Your task to perform on an android device: toggle translation in the chrome app Image 0: 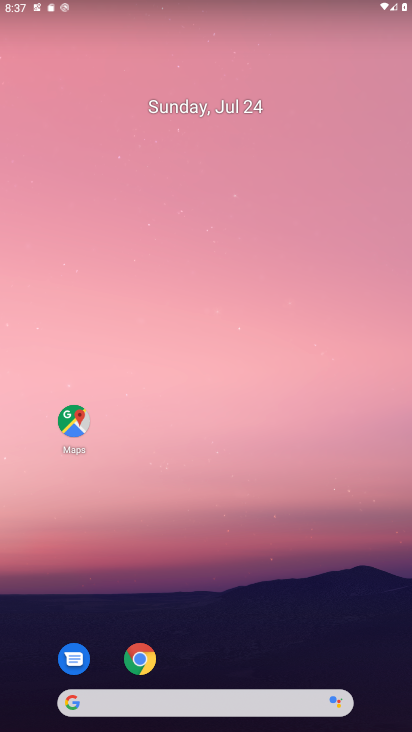
Step 0: drag from (228, 728) to (228, 146)
Your task to perform on an android device: toggle translation in the chrome app Image 1: 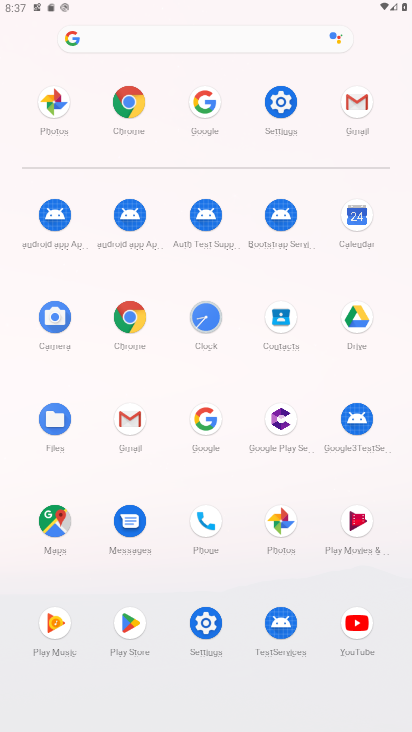
Step 1: click (124, 315)
Your task to perform on an android device: toggle translation in the chrome app Image 2: 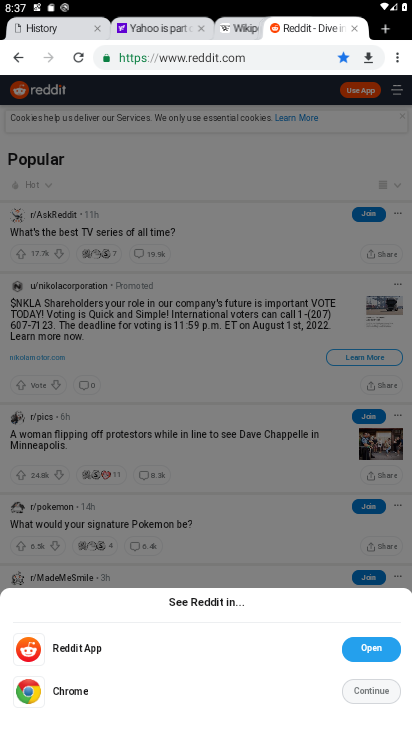
Step 2: click (396, 63)
Your task to perform on an android device: toggle translation in the chrome app Image 3: 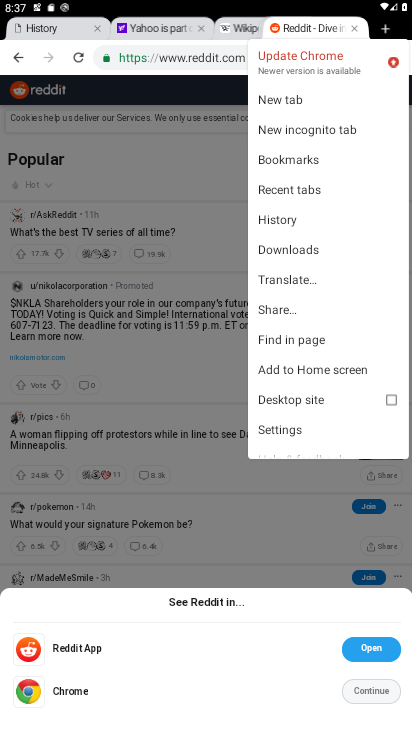
Step 3: click (287, 426)
Your task to perform on an android device: toggle translation in the chrome app Image 4: 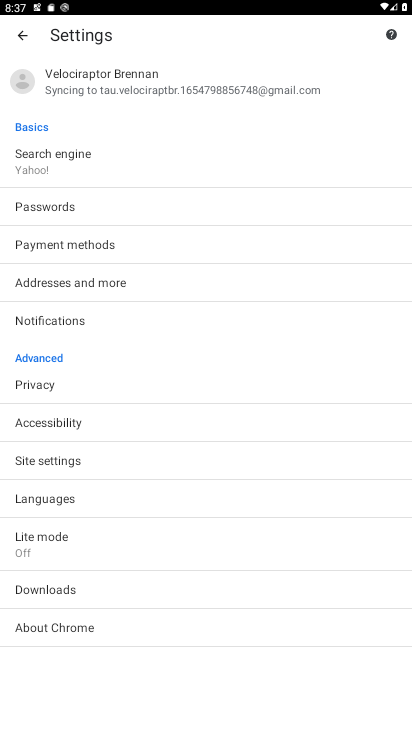
Step 4: click (41, 495)
Your task to perform on an android device: toggle translation in the chrome app Image 5: 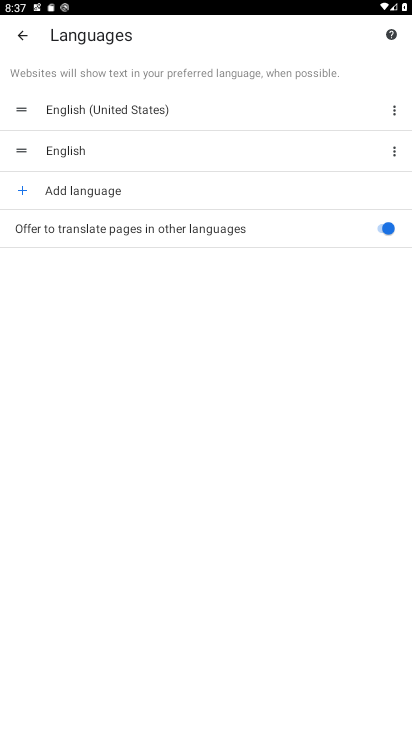
Step 5: click (385, 226)
Your task to perform on an android device: toggle translation in the chrome app Image 6: 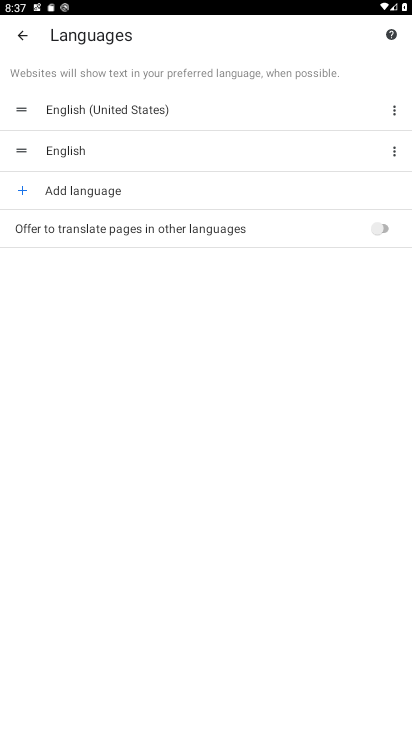
Step 6: task complete